Your task to perform on an android device: Go to Google maps Image 0: 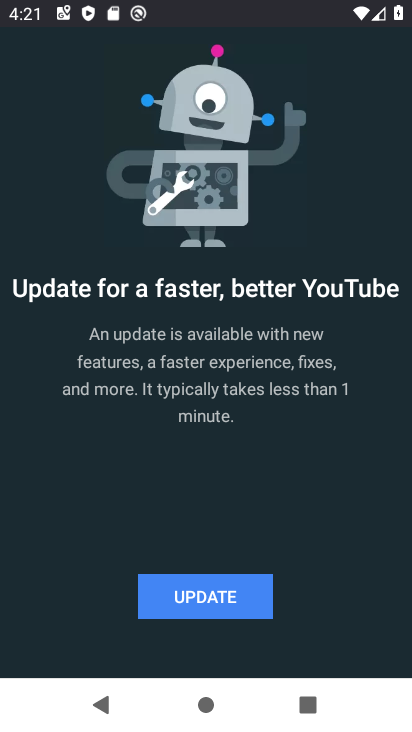
Step 0: press home button
Your task to perform on an android device: Go to Google maps Image 1: 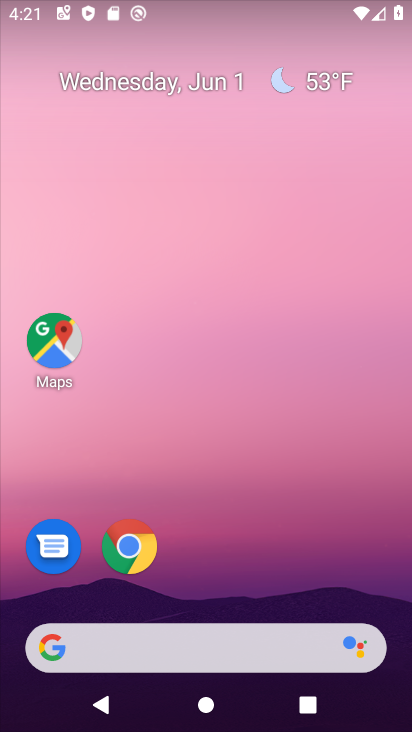
Step 1: click (46, 350)
Your task to perform on an android device: Go to Google maps Image 2: 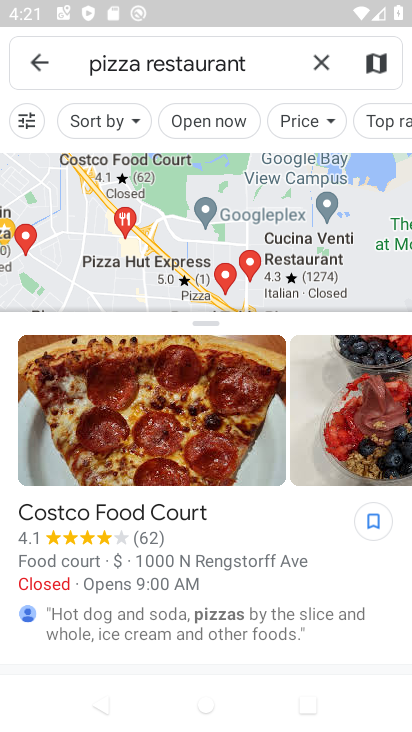
Step 2: click (322, 61)
Your task to perform on an android device: Go to Google maps Image 3: 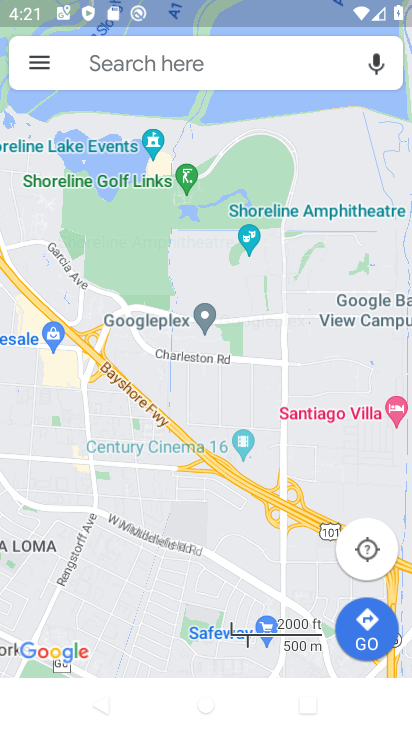
Step 3: click (311, 58)
Your task to perform on an android device: Go to Google maps Image 4: 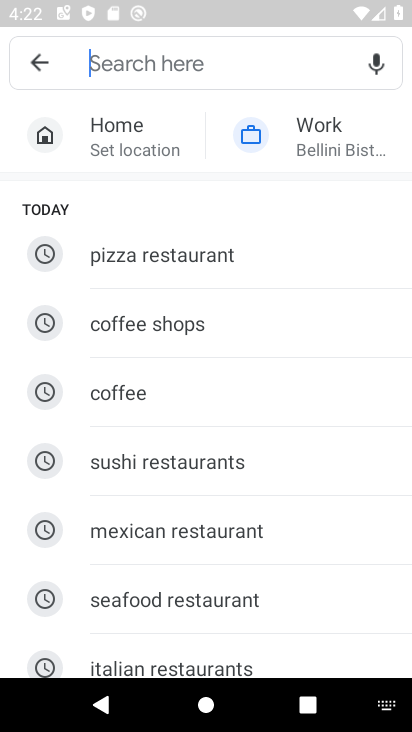
Step 4: task complete